Your task to perform on an android device: Go to ESPN.com Image 0: 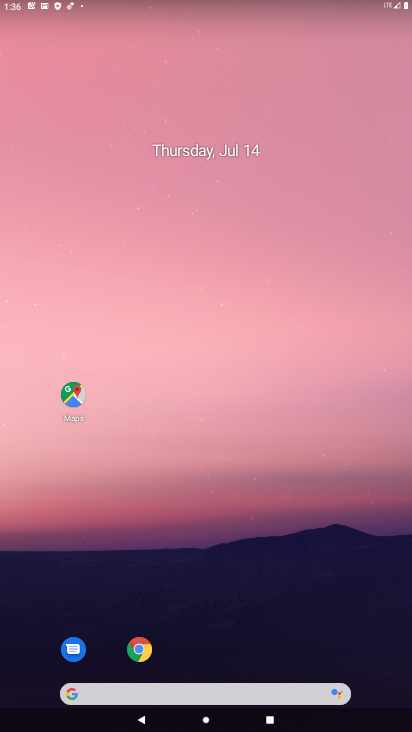
Step 0: drag from (369, 665) to (269, 21)
Your task to perform on an android device: Go to ESPN.com Image 1: 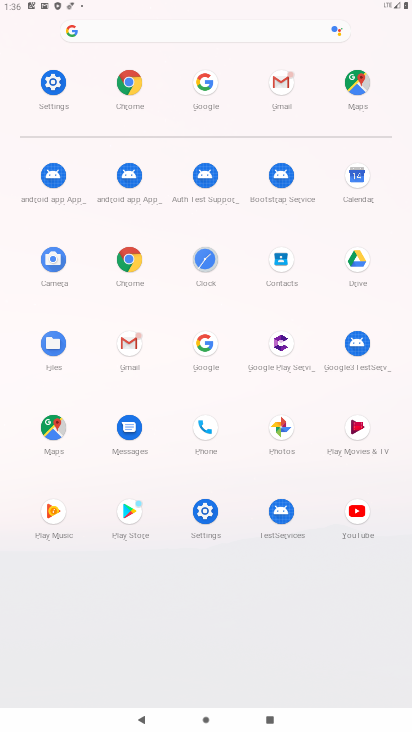
Step 1: click (198, 339)
Your task to perform on an android device: Go to ESPN.com Image 2: 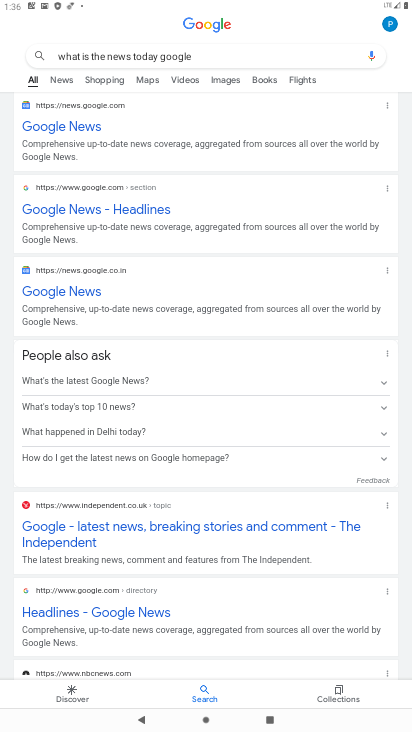
Step 2: press back button
Your task to perform on an android device: Go to ESPN.com Image 3: 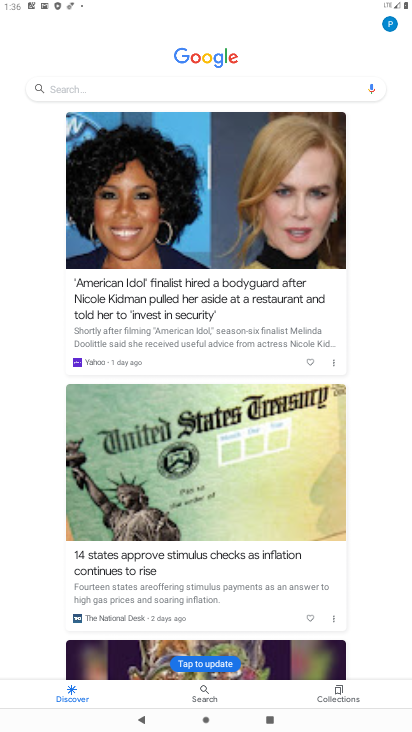
Step 3: click (93, 85)
Your task to perform on an android device: Go to ESPN.com Image 4: 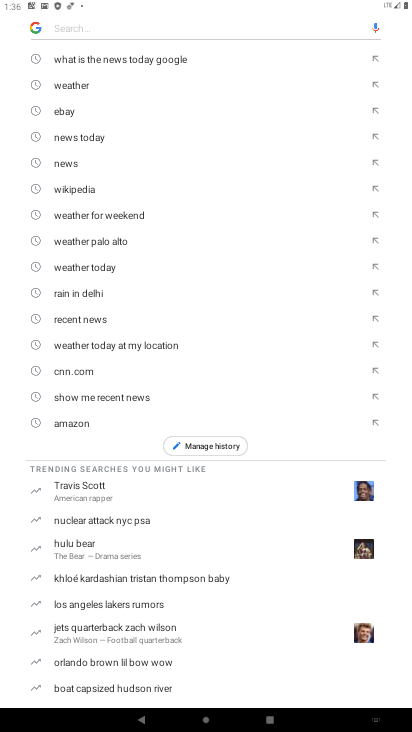
Step 4: type "espn.com"
Your task to perform on an android device: Go to ESPN.com Image 5: 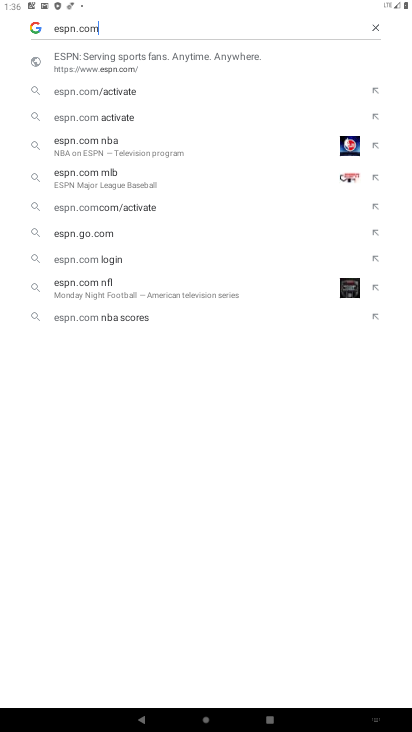
Step 5: click (119, 69)
Your task to perform on an android device: Go to ESPN.com Image 6: 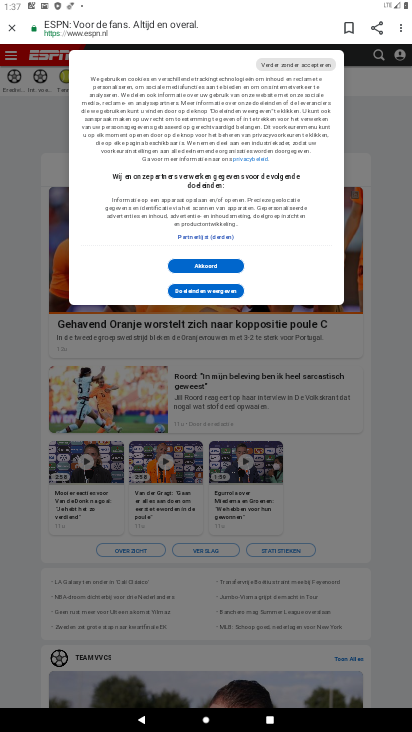
Step 6: task complete